Your task to perform on an android device: check android version Image 0: 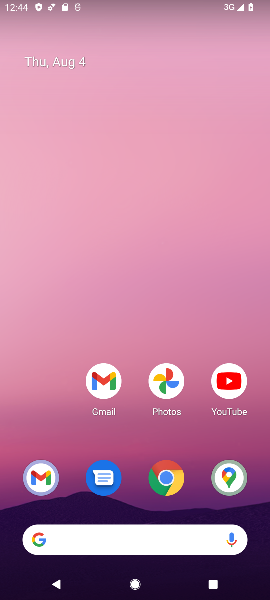
Step 0: drag from (204, 419) to (211, 32)
Your task to perform on an android device: check android version Image 1: 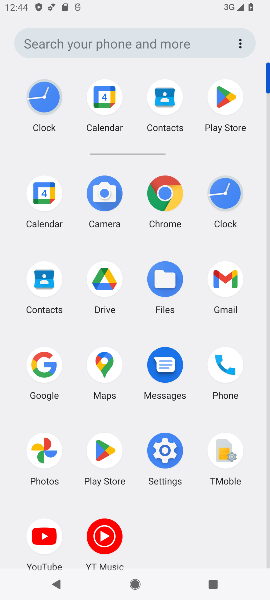
Step 1: click (166, 436)
Your task to perform on an android device: check android version Image 2: 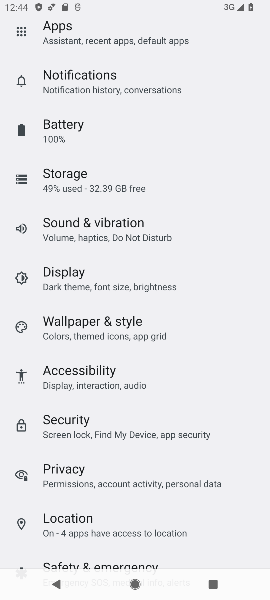
Step 2: drag from (166, 436) to (118, 75)
Your task to perform on an android device: check android version Image 3: 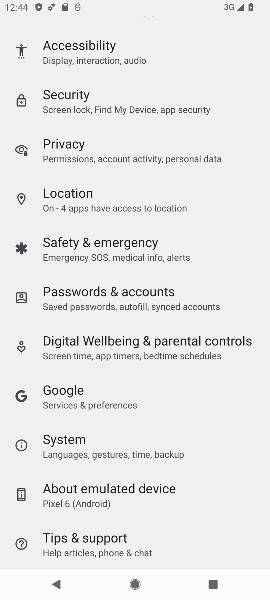
Step 3: click (20, 489)
Your task to perform on an android device: check android version Image 4: 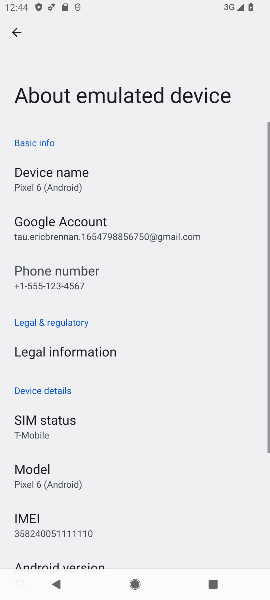
Step 4: drag from (68, 461) to (4, 139)
Your task to perform on an android device: check android version Image 5: 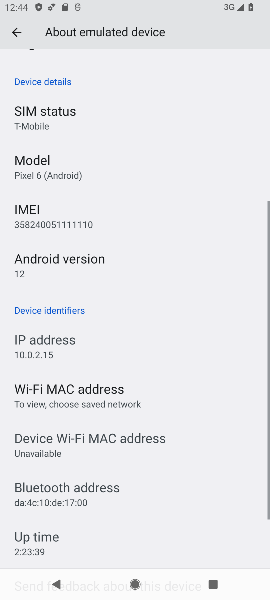
Step 5: click (56, 281)
Your task to perform on an android device: check android version Image 6: 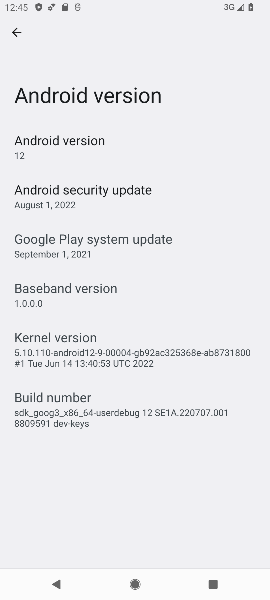
Step 6: task complete